Your task to perform on an android device: turn on sleep mode Image 0: 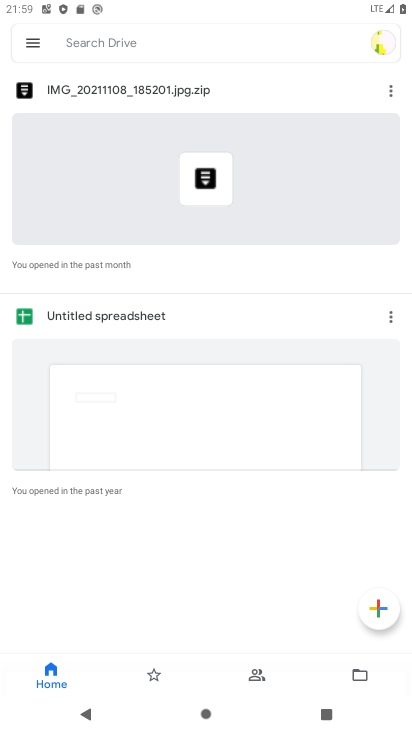
Step 0: press home button
Your task to perform on an android device: turn on sleep mode Image 1: 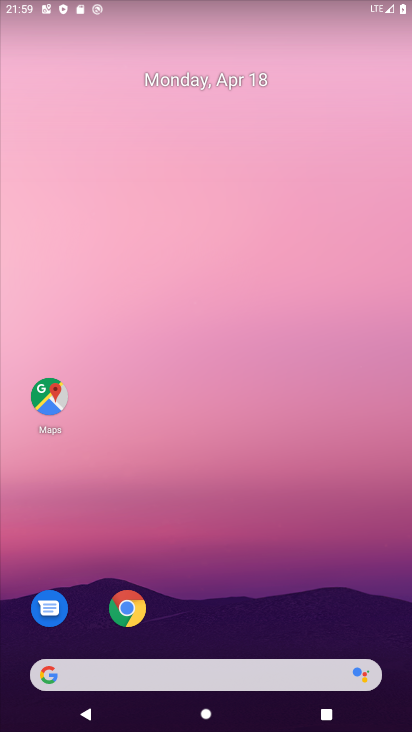
Step 1: drag from (226, 562) to (227, 60)
Your task to perform on an android device: turn on sleep mode Image 2: 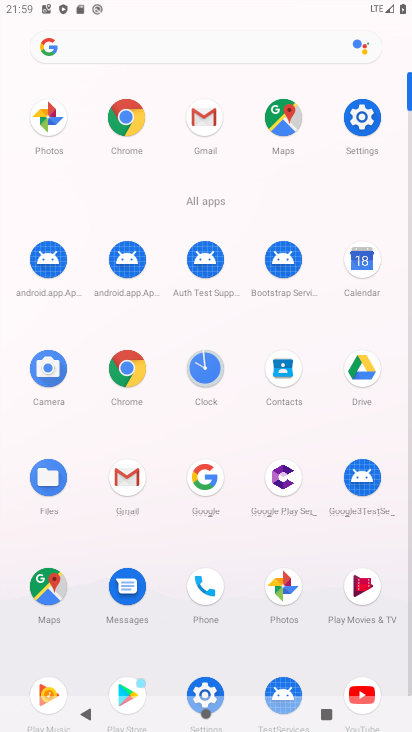
Step 2: click (208, 678)
Your task to perform on an android device: turn on sleep mode Image 3: 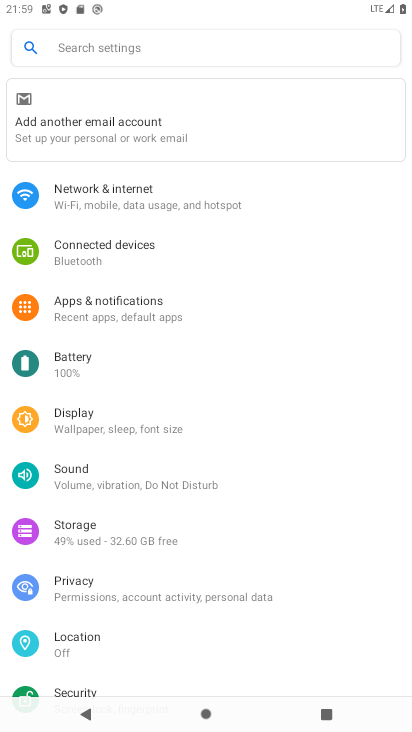
Step 3: click (127, 412)
Your task to perform on an android device: turn on sleep mode Image 4: 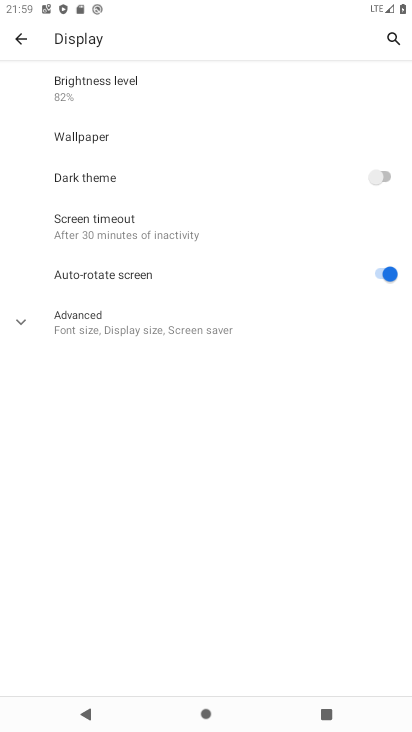
Step 4: task complete